Your task to perform on an android device: install app "Adobe Acrobat Reader: Edit PDF" Image 0: 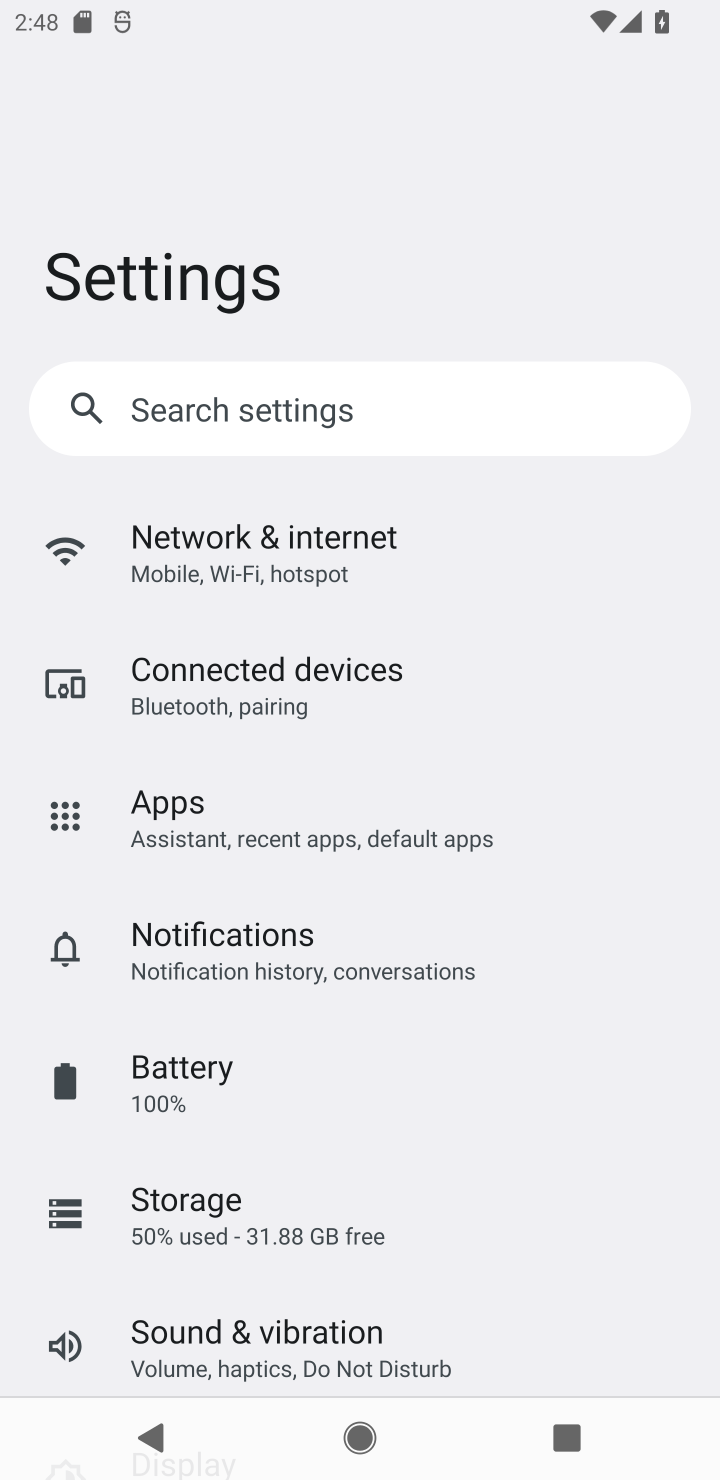
Step 0: press home button
Your task to perform on an android device: install app "Adobe Acrobat Reader: Edit PDF" Image 1: 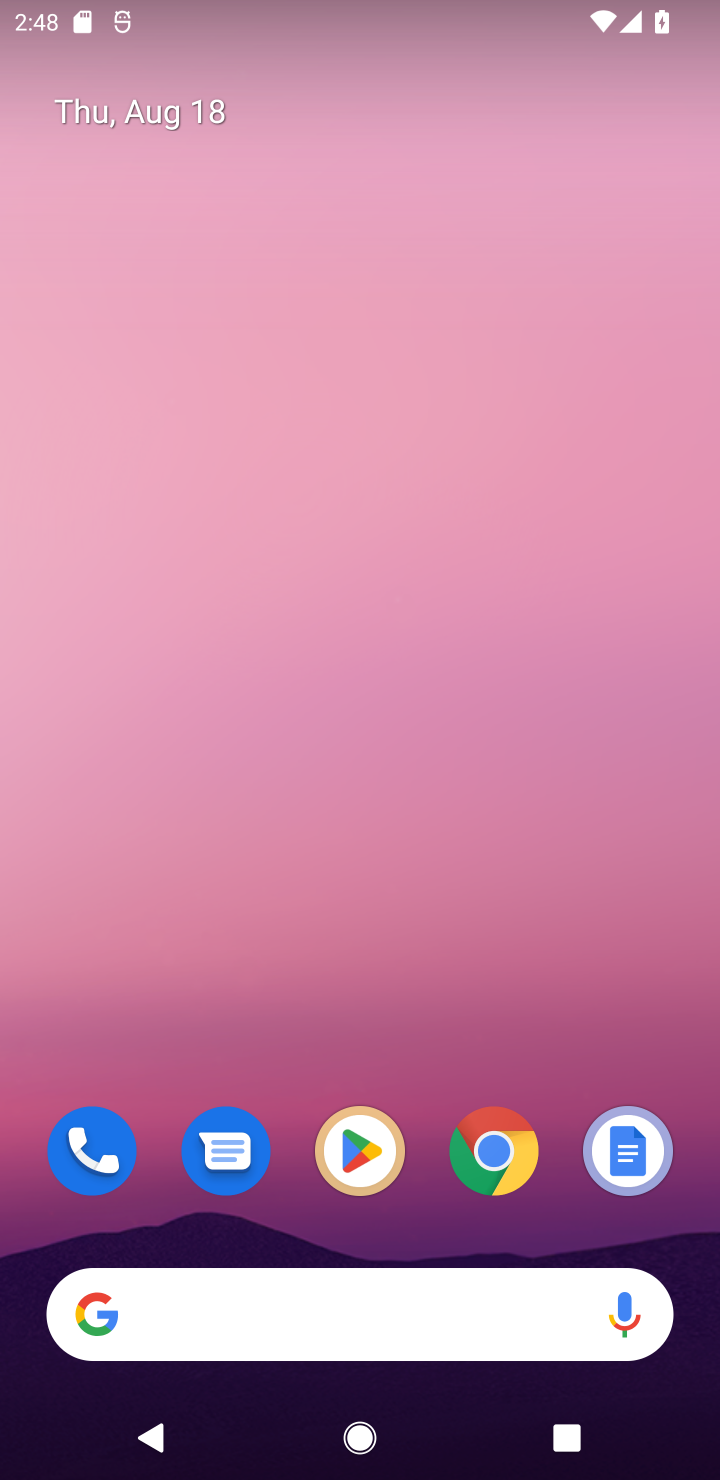
Step 1: click (354, 1179)
Your task to perform on an android device: install app "Adobe Acrobat Reader: Edit PDF" Image 2: 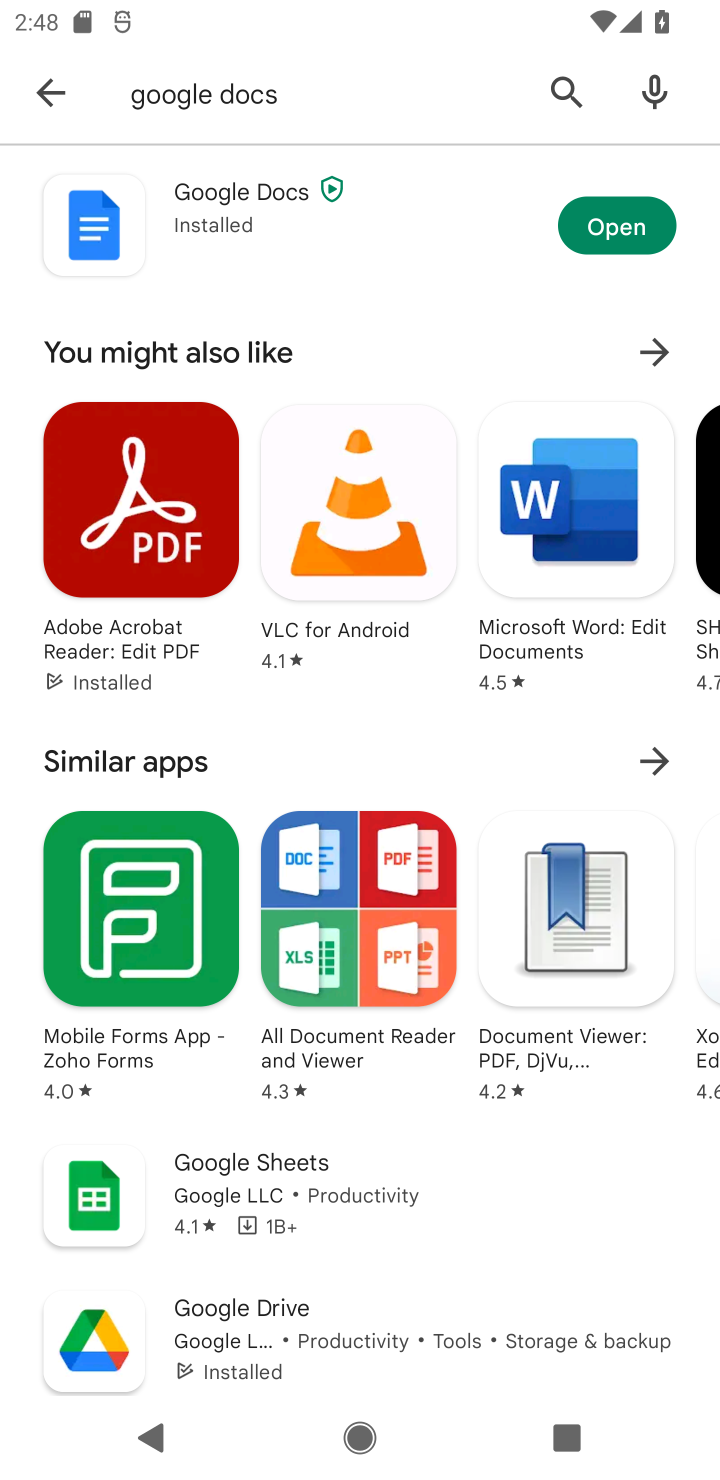
Step 2: click (589, 103)
Your task to perform on an android device: install app "Adobe Acrobat Reader: Edit PDF" Image 3: 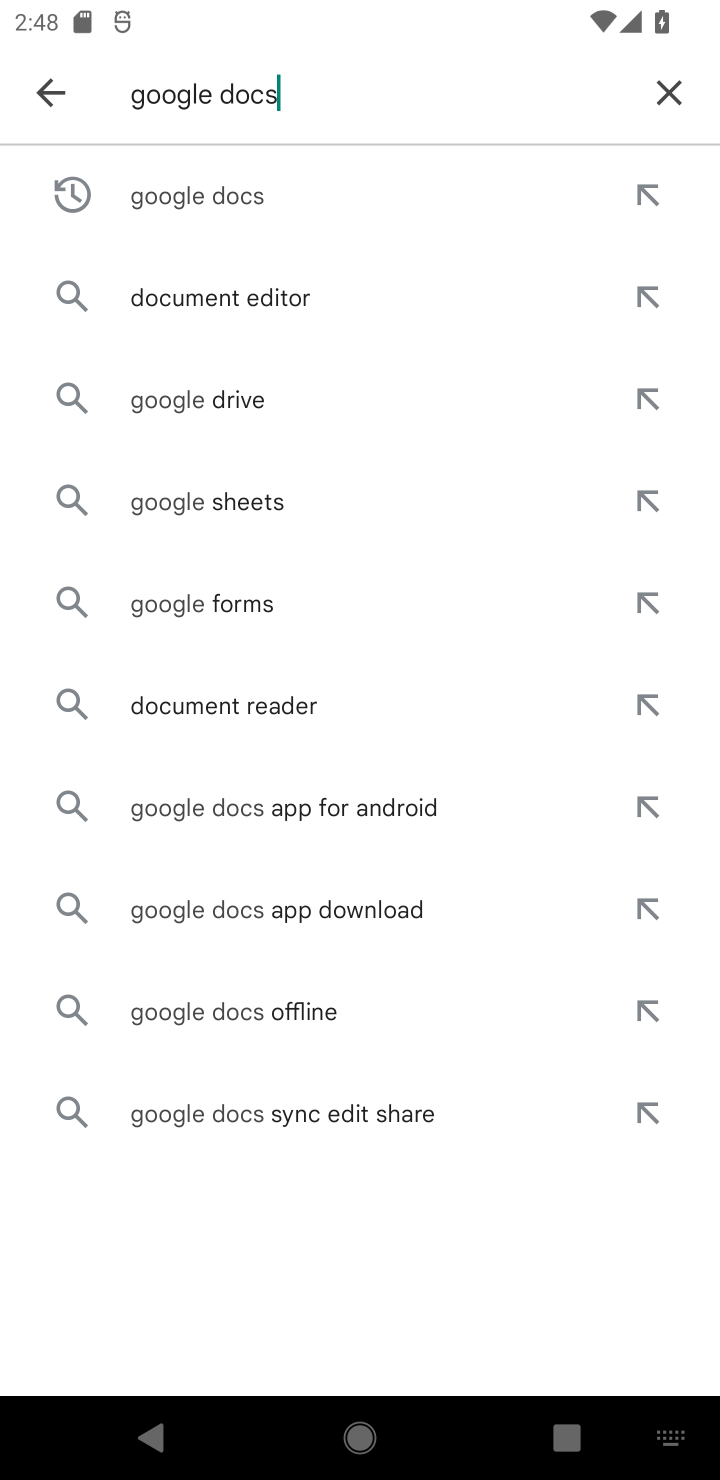
Step 3: click (675, 113)
Your task to perform on an android device: install app "Adobe Acrobat Reader: Edit PDF" Image 4: 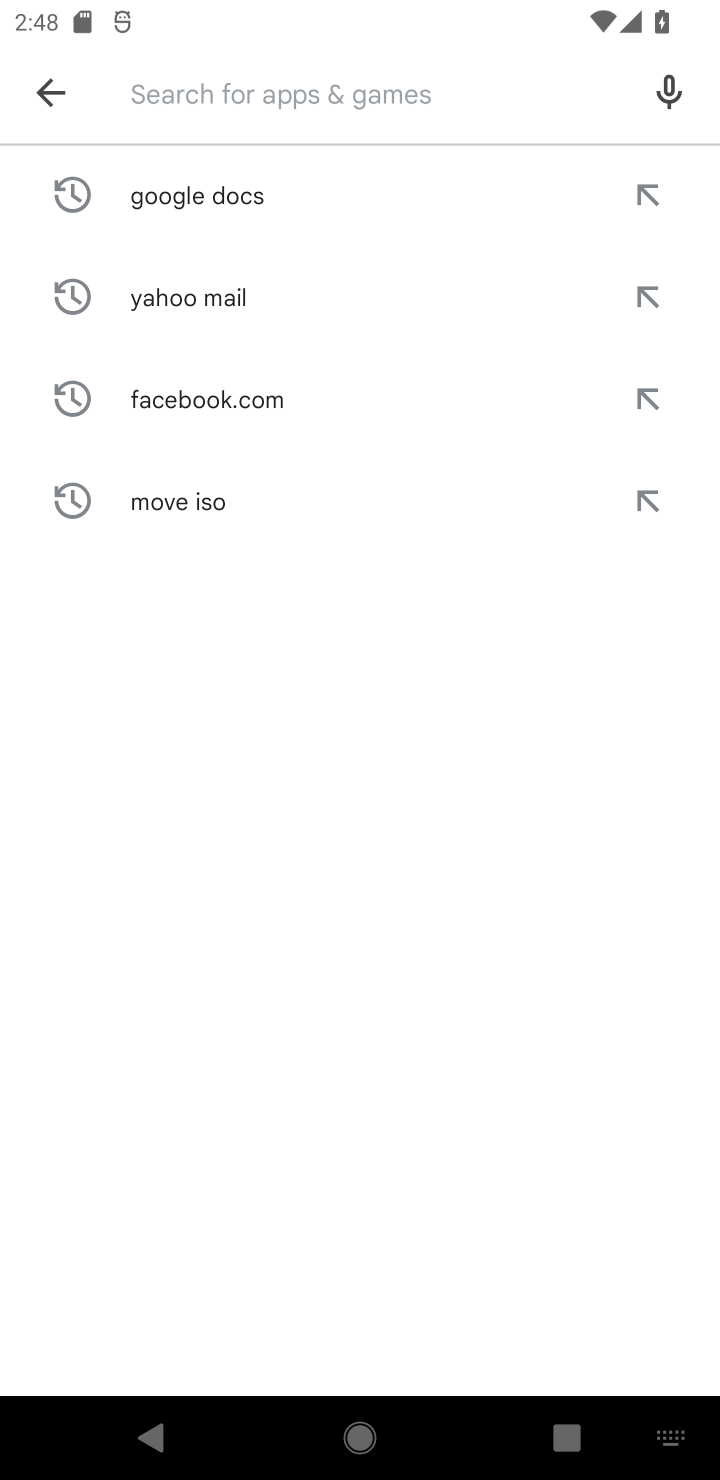
Step 4: type "adobe"
Your task to perform on an android device: install app "Adobe Acrobat Reader: Edit PDF" Image 5: 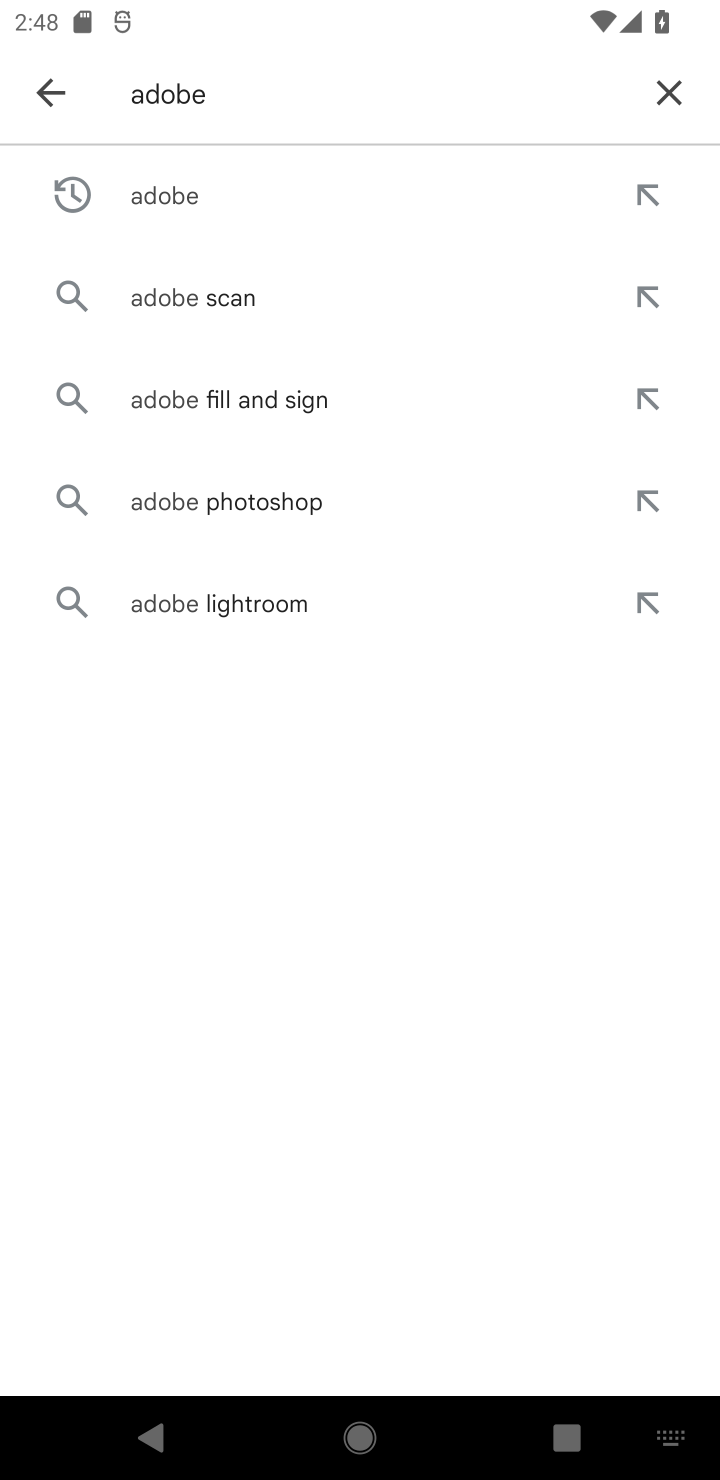
Step 5: click (275, 224)
Your task to perform on an android device: install app "Adobe Acrobat Reader: Edit PDF" Image 6: 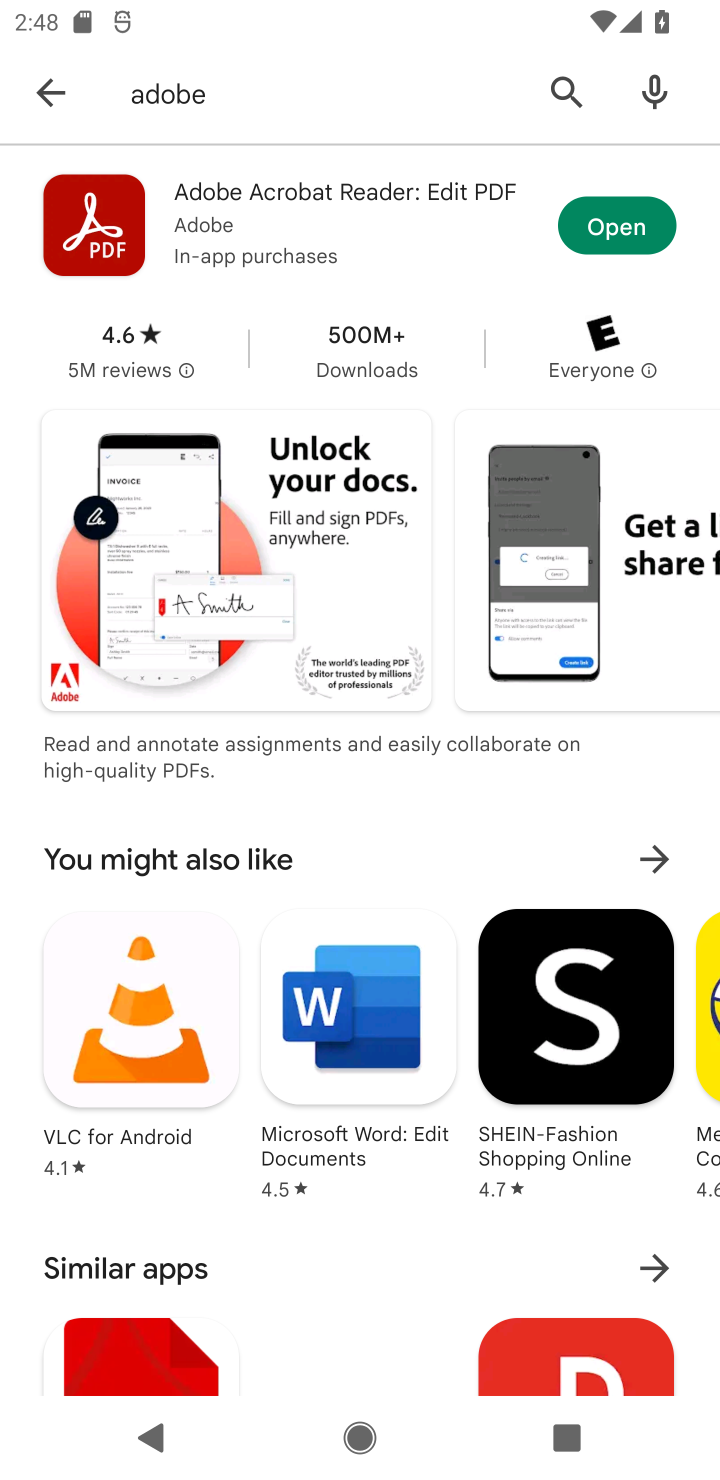
Step 6: click (627, 237)
Your task to perform on an android device: install app "Adobe Acrobat Reader: Edit PDF" Image 7: 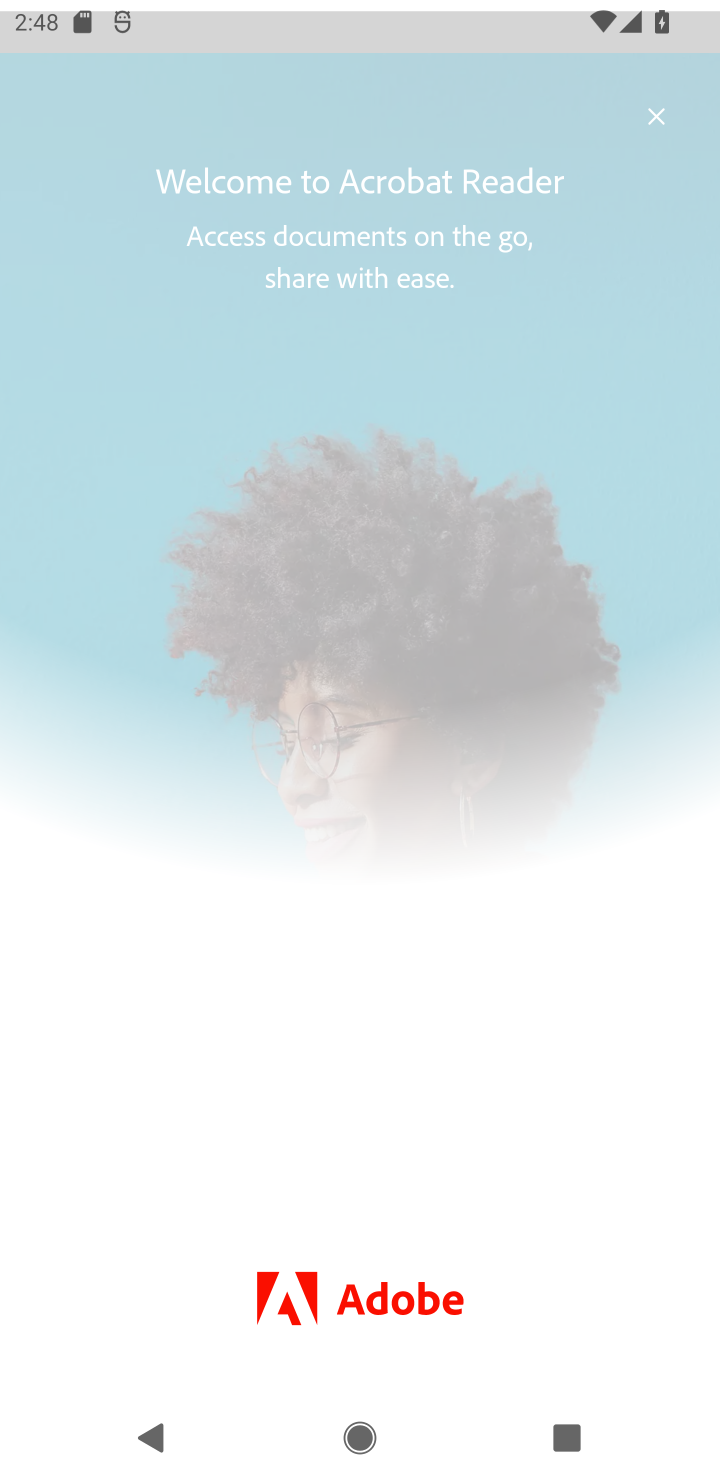
Step 7: task complete